Your task to perform on an android device: turn off javascript in the chrome app Image 0: 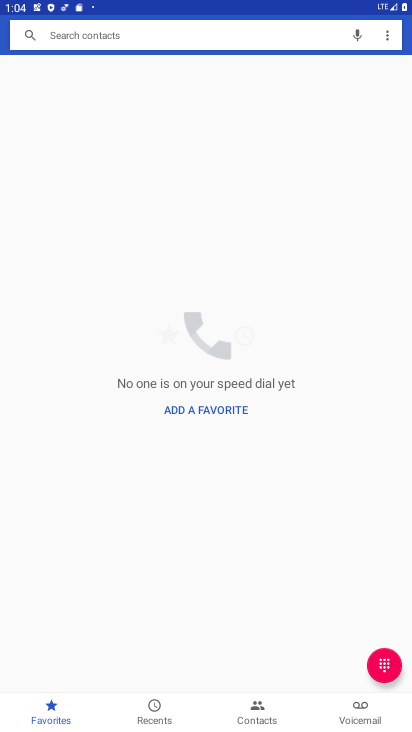
Step 0: press home button
Your task to perform on an android device: turn off javascript in the chrome app Image 1: 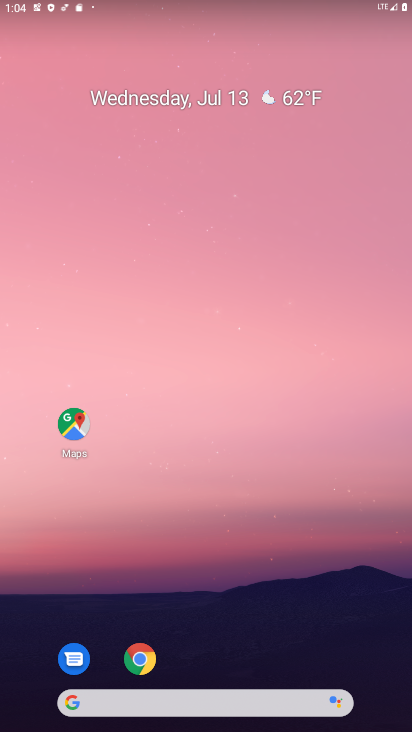
Step 1: click (138, 659)
Your task to perform on an android device: turn off javascript in the chrome app Image 2: 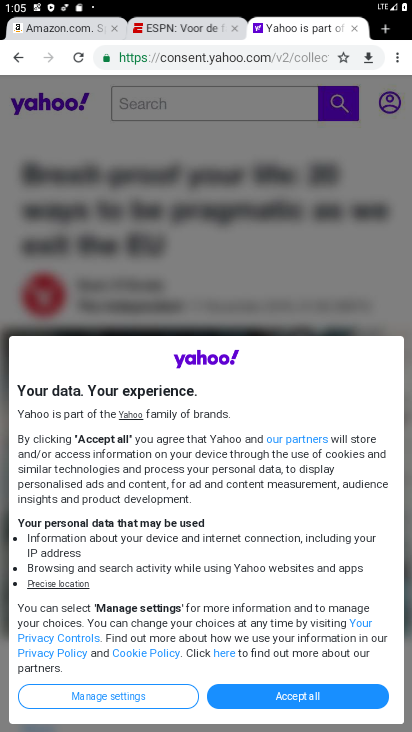
Step 2: click (398, 58)
Your task to perform on an android device: turn off javascript in the chrome app Image 3: 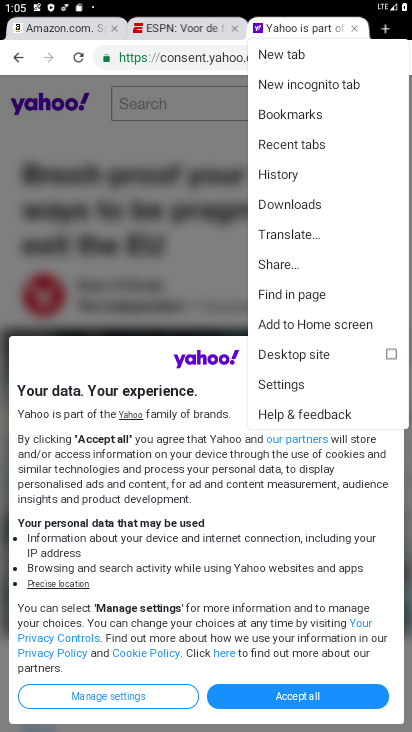
Step 3: click (289, 384)
Your task to perform on an android device: turn off javascript in the chrome app Image 4: 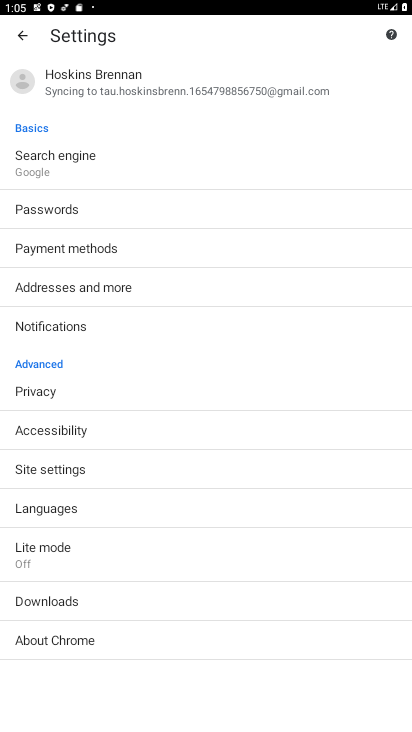
Step 4: click (60, 468)
Your task to perform on an android device: turn off javascript in the chrome app Image 5: 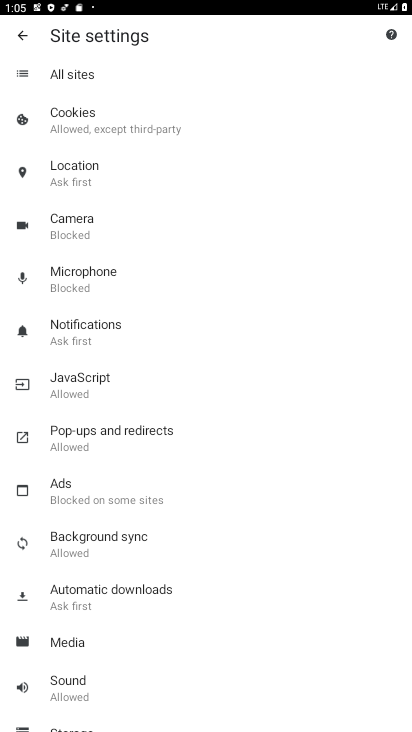
Step 5: click (82, 376)
Your task to perform on an android device: turn off javascript in the chrome app Image 6: 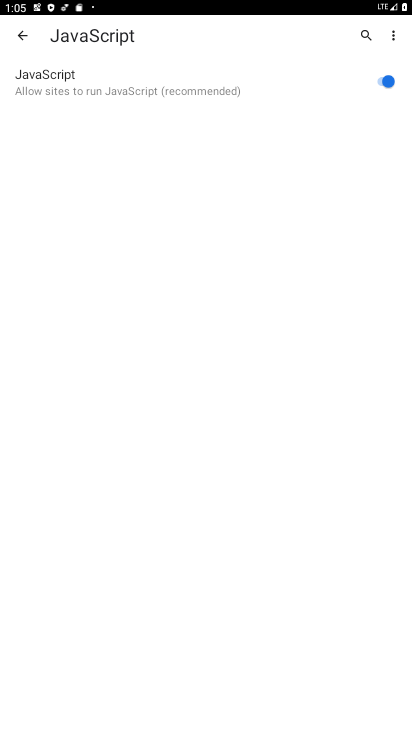
Step 6: click (383, 78)
Your task to perform on an android device: turn off javascript in the chrome app Image 7: 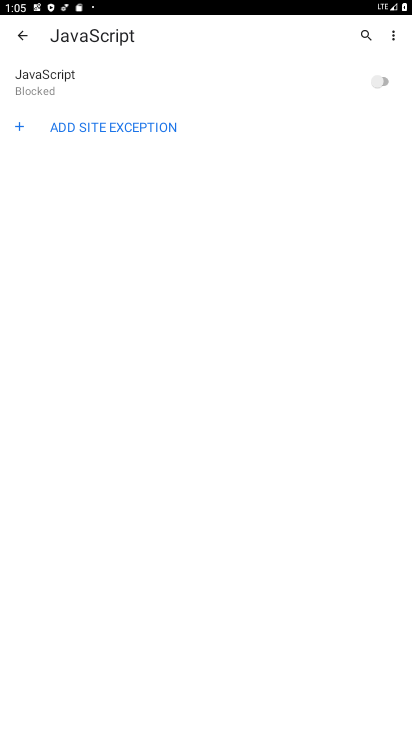
Step 7: task complete